Your task to perform on an android device: Go to privacy settings Image 0: 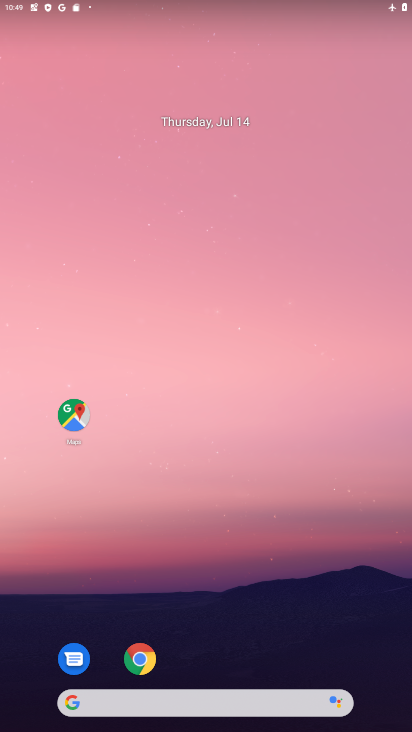
Step 0: drag from (286, 602) to (203, 143)
Your task to perform on an android device: Go to privacy settings Image 1: 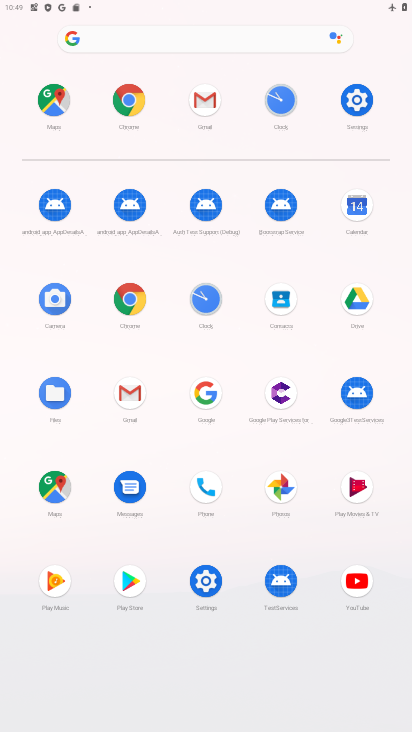
Step 1: click (373, 107)
Your task to perform on an android device: Go to privacy settings Image 2: 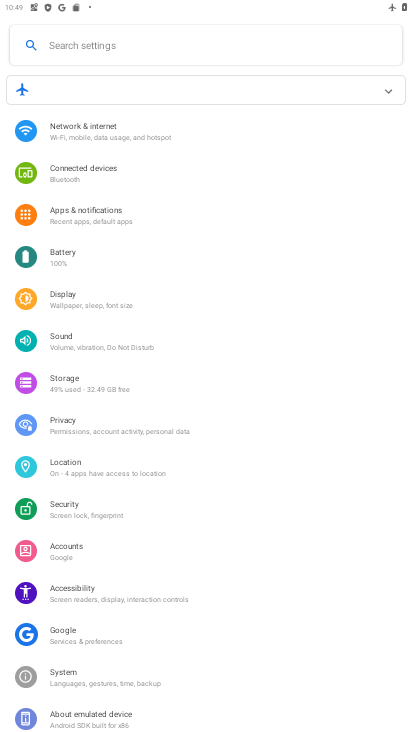
Step 2: click (117, 427)
Your task to perform on an android device: Go to privacy settings Image 3: 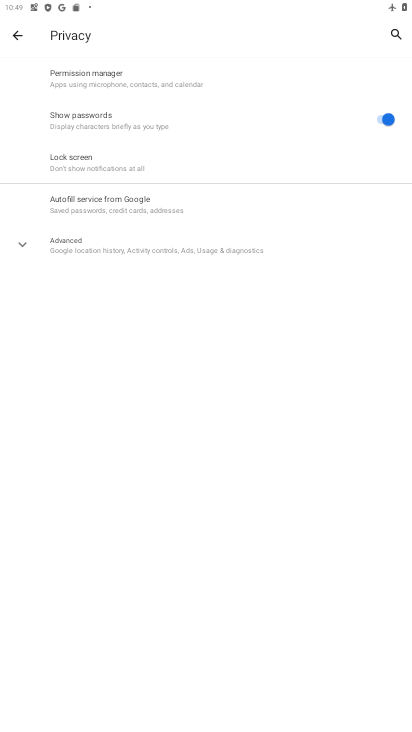
Step 3: task complete